Your task to perform on an android device: Show me popular games on the Play Store Image 0: 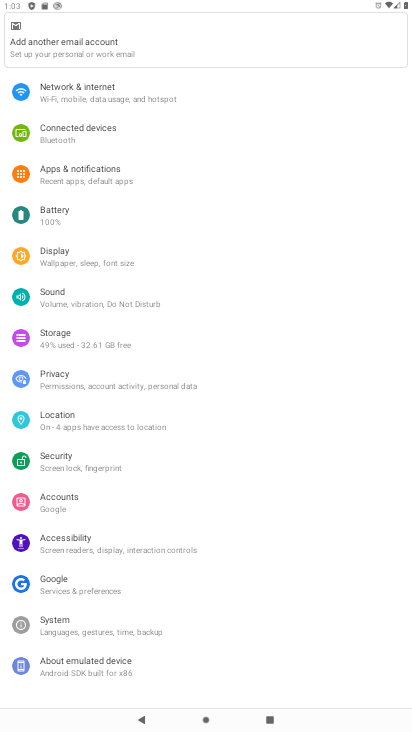
Step 0: press home button
Your task to perform on an android device: Show me popular games on the Play Store Image 1: 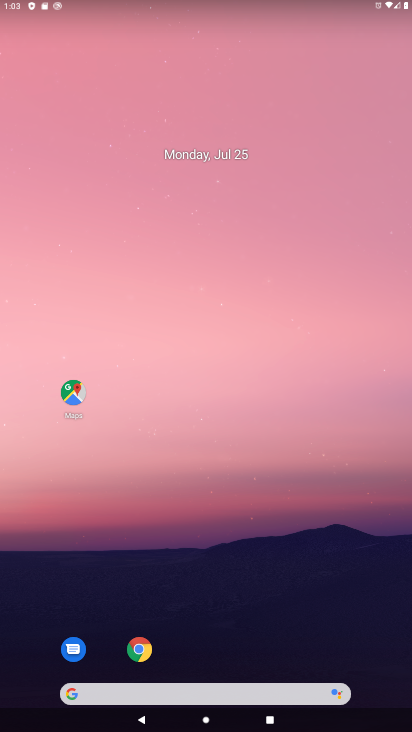
Step 1: drag from (278, 642) to (265, 132)
Your task to perform on an android device: Show me popular games on the Play Store Image 2: 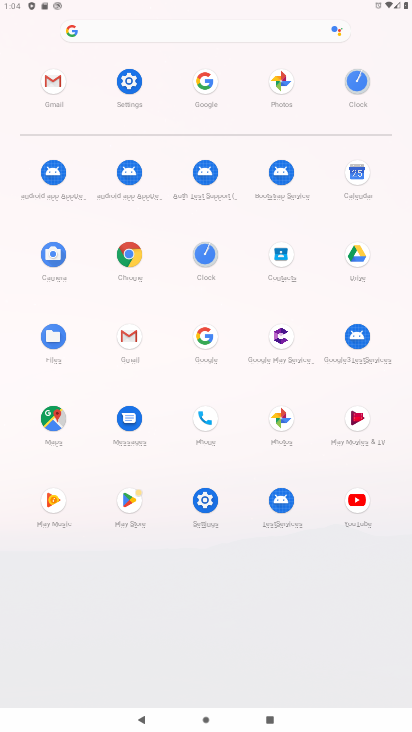
Step 2: click (132, 505)
Your task to perform on an android device: Show me popular games on the Play Store Image 3: 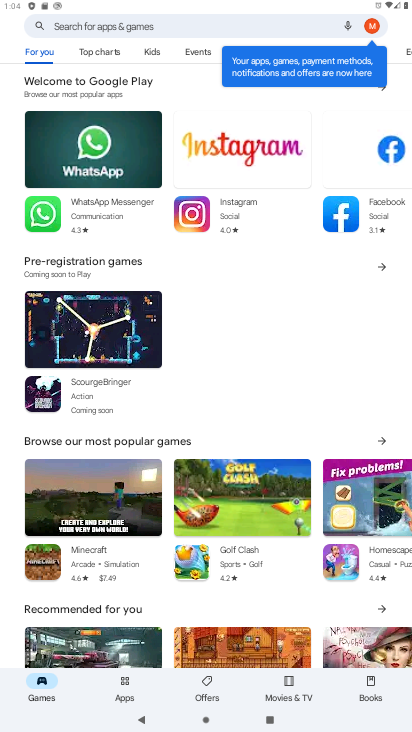
Step 3: click (368, 436)
Your task to perform on an android device: Show me popular games on the Play Store Image 4: 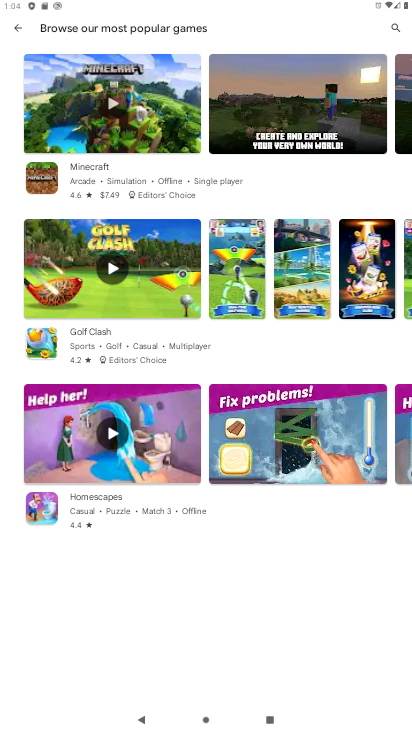
Step 4: task complete